Your task to perform on an android device: change the upload size in google photos Image 0: 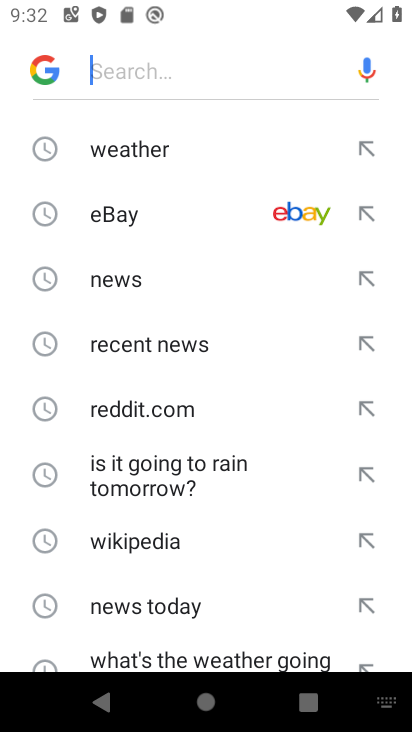
Step 0: press home button
Your task to perform on an android device: change the upload size in google photos Image 1: 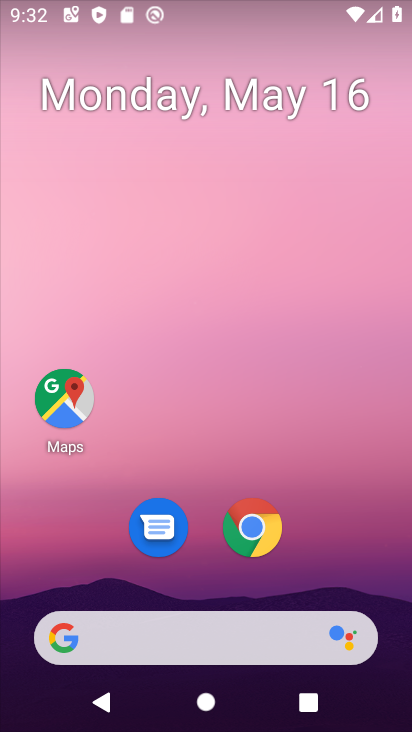
Step 1: drag from (335, 592) to (314, 22)
Your task to perform on an android device: change the upload size in google photos Image 2: 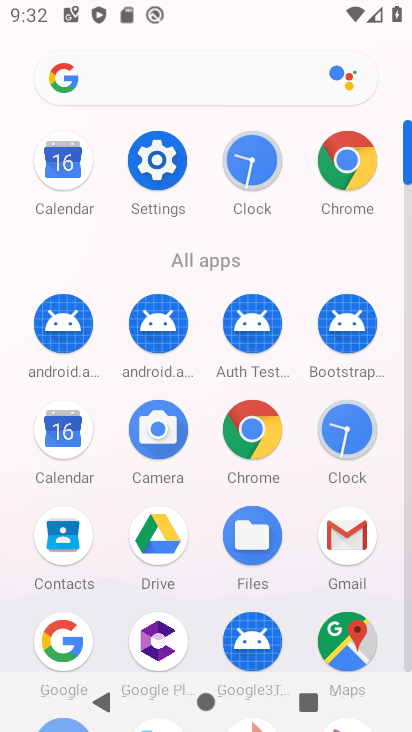
Step 2: click (407, 516)
Your task to perform on an android device: change the upload size in google photos Image 3: 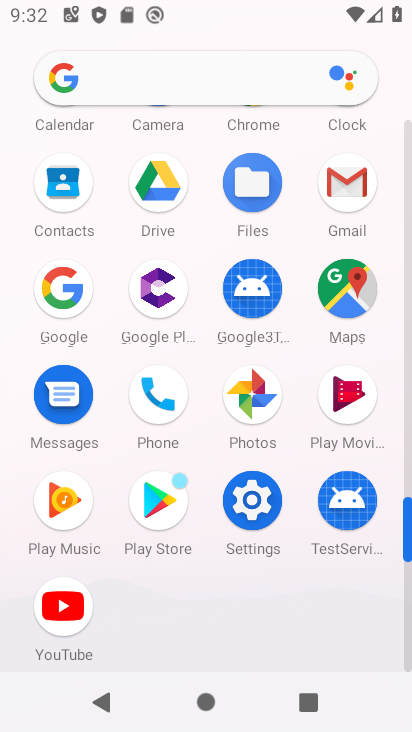
Step 3: click (249, 400)
Your task to perform on an android device: change the upload size in google photos Image 4: 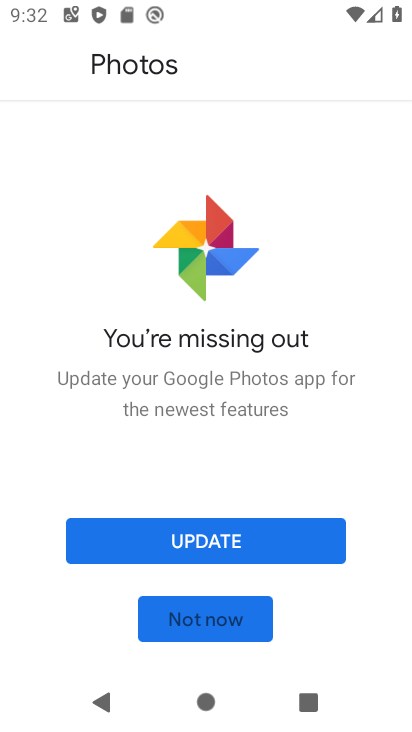
Step 4: click (211, 617)
Your task to perform on an android device: change the upload size in google photos Image 5: 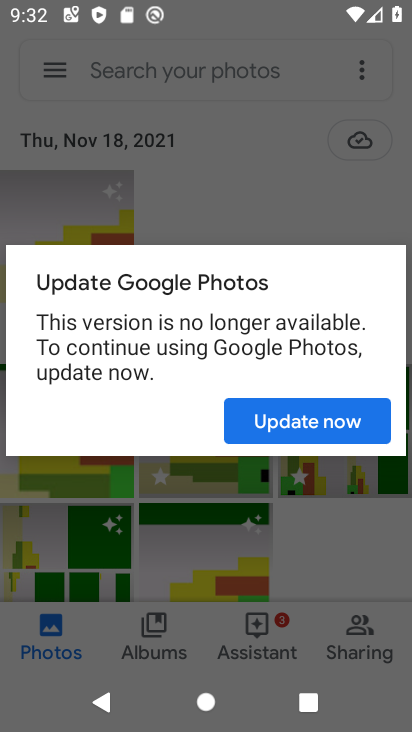
Step 5: click (279, 427)
Your task to perform on an android device: change the upload size in google photos Image 6: 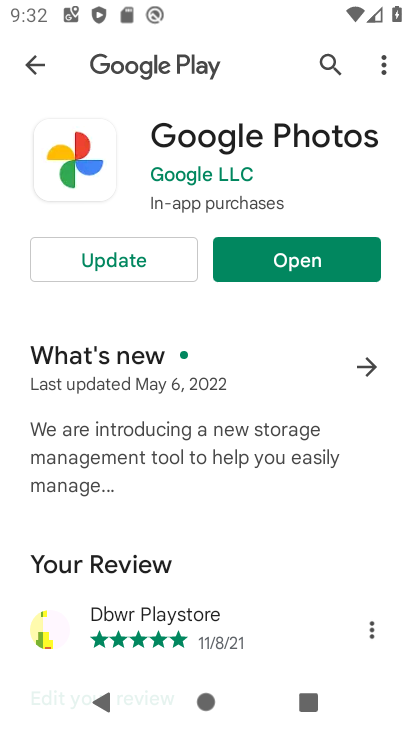
Step 6: click (255, 269)
Your task to perform on an android device: change the upload size in google photos Image 7: 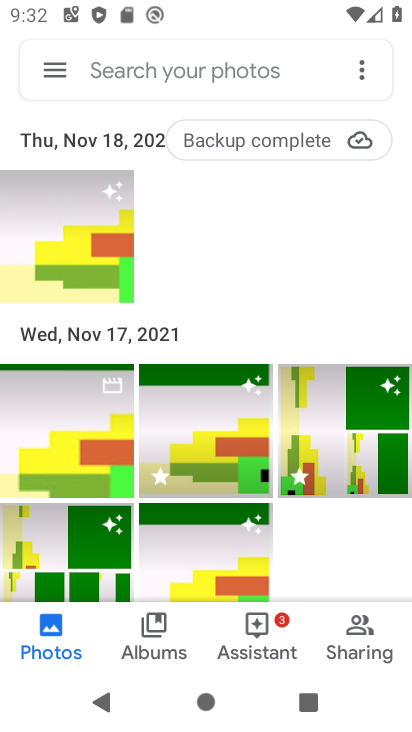
Step 7: click (46, 73)
Your task to perform on an android device: change the upload size in google photos Image 8: 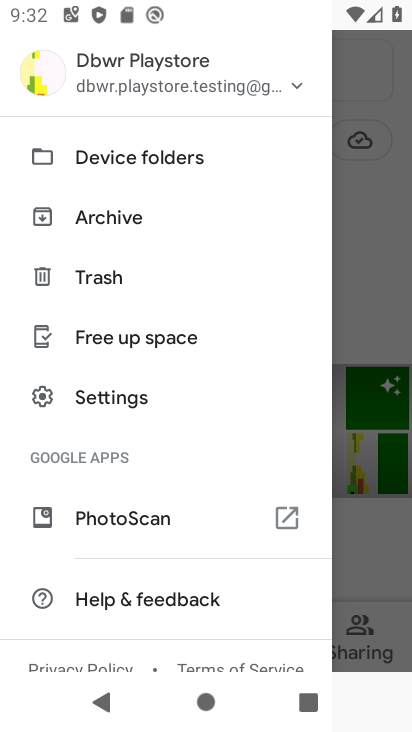
Step 8: click (100, 399)
Your task to perform on an android device: change the upload size in google photos Image 9: 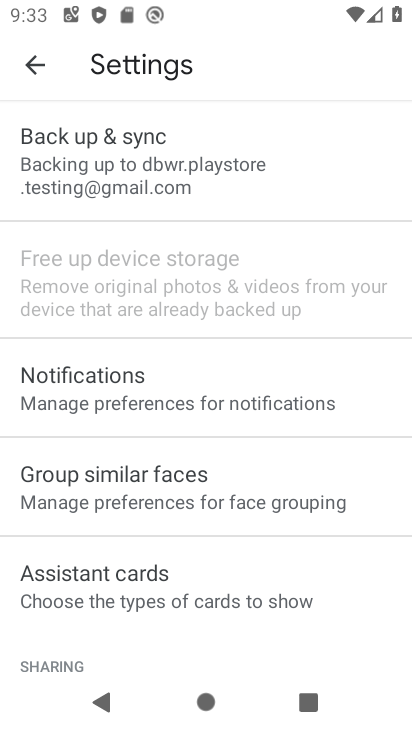
Step 9: click (110, 159)
Your task to perform on an android device: change the upload size in google photos Image 10: 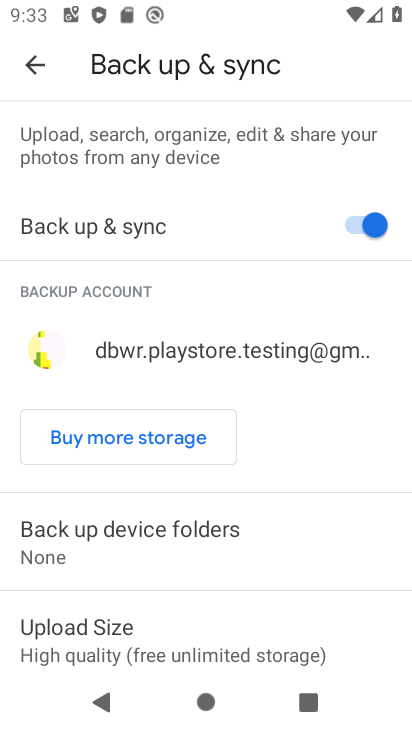
Step 10: drag from (110, 514) to (109, 259)
Your task to perform on an android device: change the upload size in google photos Image 11: 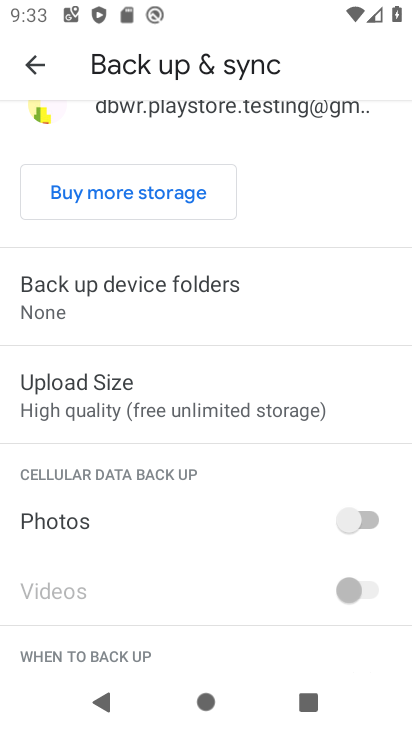
Step 11: click (104, 410)
Your task to perform on an android device: change the upload size in google photos Image 12: 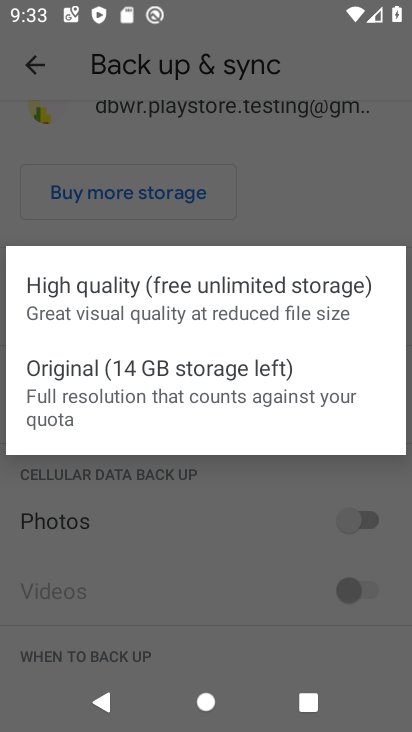
Step 12: click (83, 396)
Your task to perform on an android device: change the upload size in google photos Image 13: 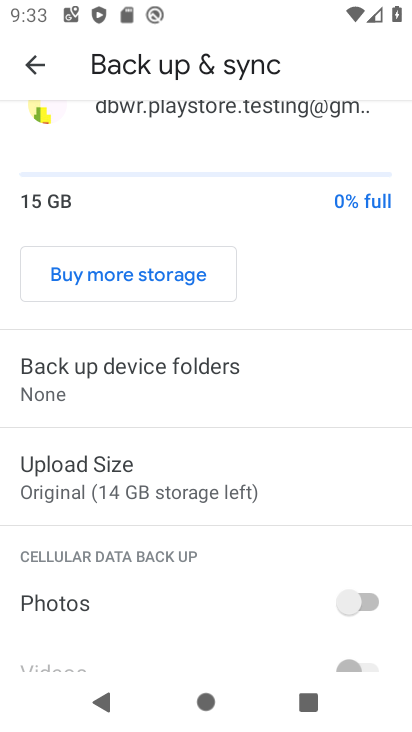
Step 13: task complete